Your task to perform on an android device: check battery use Image 0: 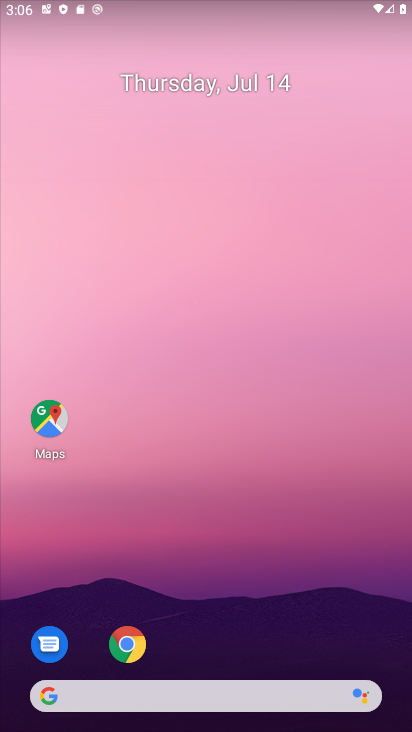
Step 0: click (319, 19)
Your task to perform on an android device: check battery use Image 1: 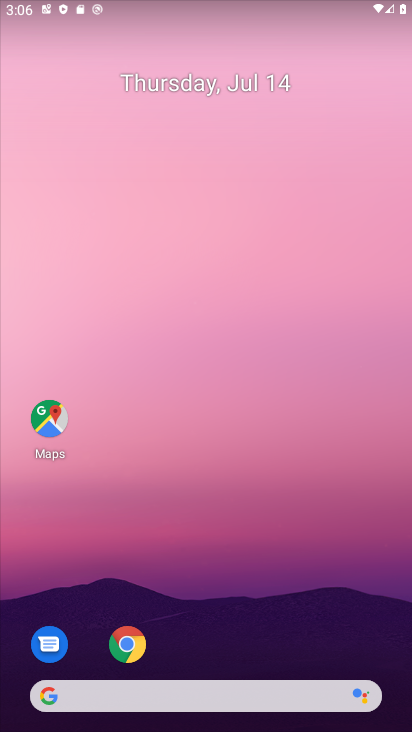
Step 1: drag from (184, 349) to (164, 74)
Your task to perform on an android device: check battery use Image 2: 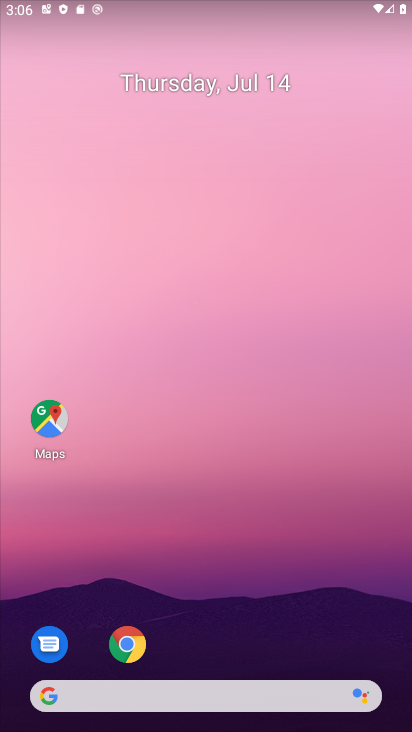
Step 2: drag from (184, 670) to (235, 12)
Your task to perform on an android device: check battery use Image 3: 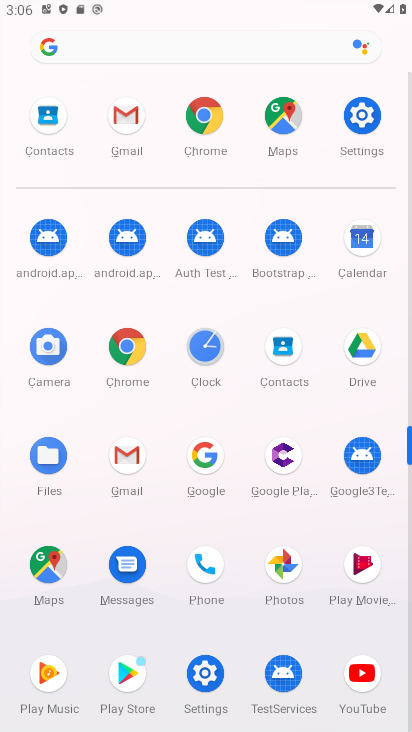
Step 3: click (359, 105)
Your task to perform on an android device: check battery use Image 4: 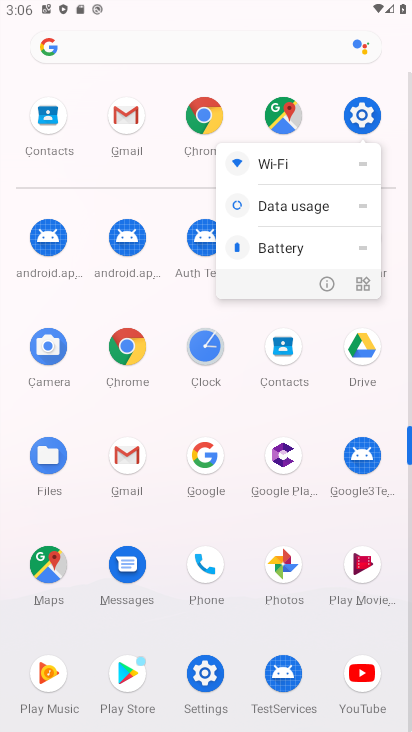
Step 4: click (324, 278)
Your task to perform on an android device: check battery use Image 5: 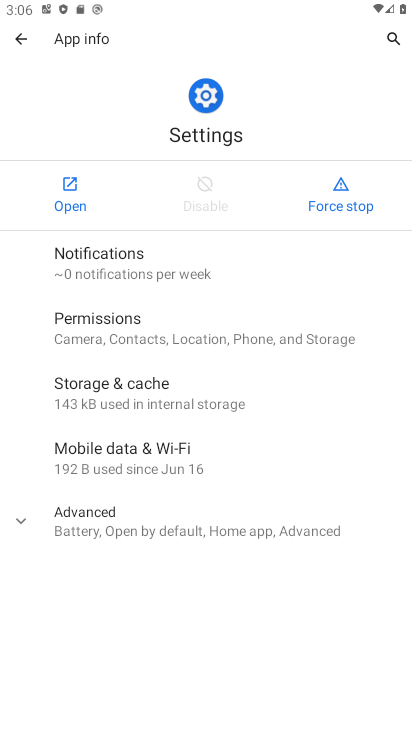
Step 5: click (69, 186)
Your task to perform on an android device: check battery use Image 6: 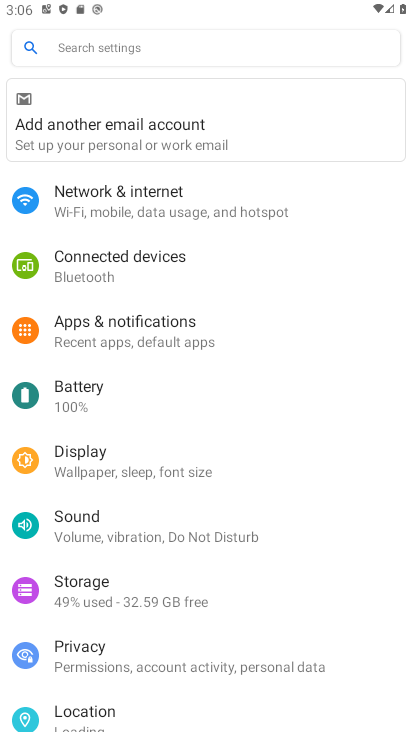
Step 6: click (88, 398)
Your task to perform on an android device: check battery use Image 7: 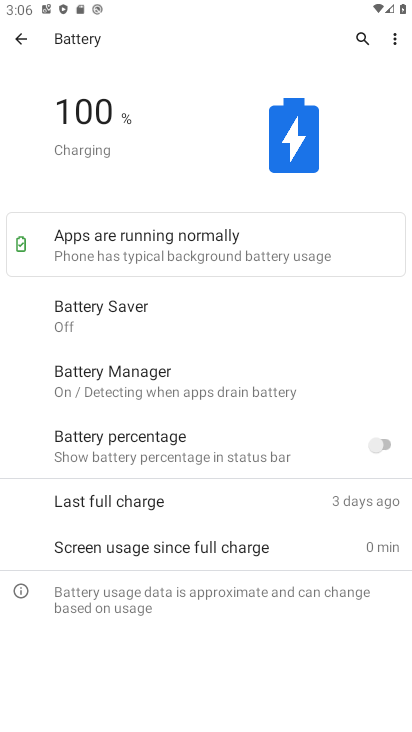
Step 7: drag from (184, 469) to (240, 298)
Your task to perform on an android device: check battery use Image 8: 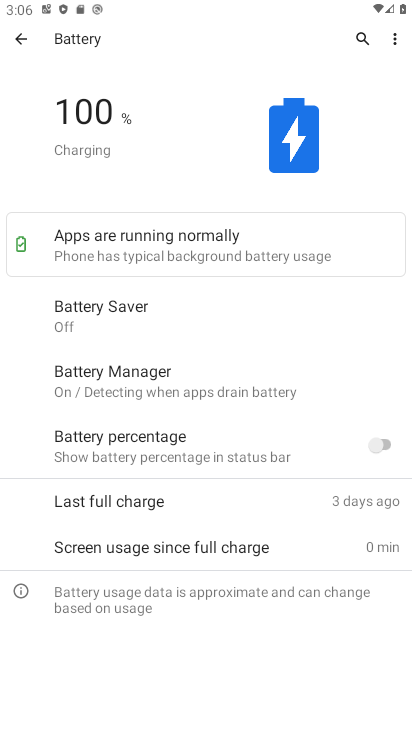
Step 8: click (395, 36)
Your task to perform on an android device: check battery use Image 9: 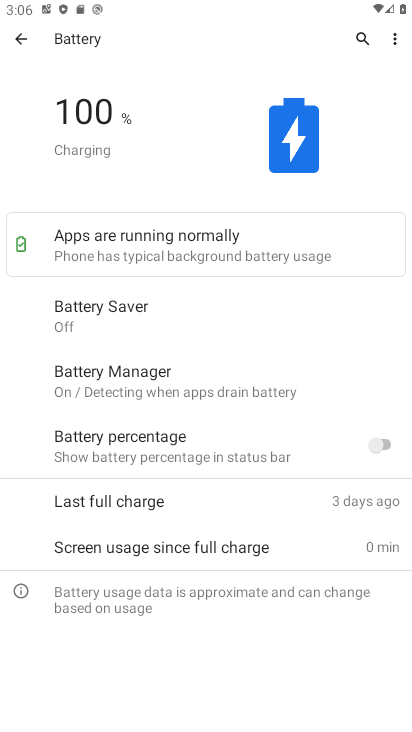
Step 9: click (395, 43)
Your task to perform on an android device: check battery use Image 10: 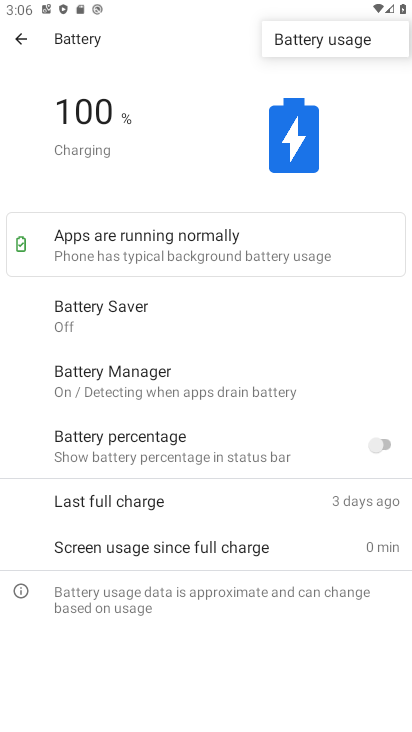
Step 10: click (341, 24)
Your task to perform on an android device: check battery use Image 11: 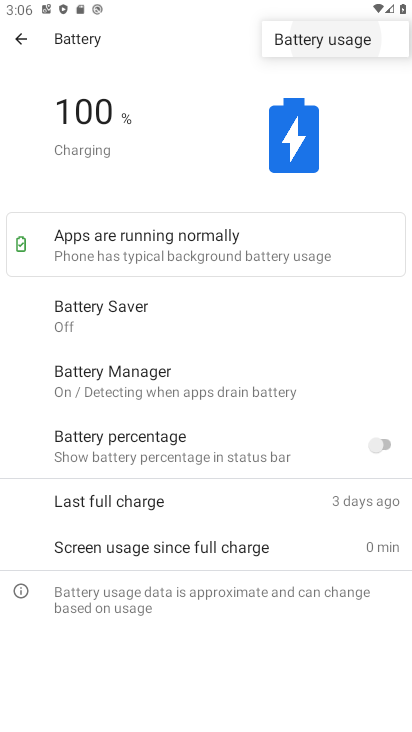
Step 11: click (329, 38)
Your task to perform on an android device: check battery use Image 12: 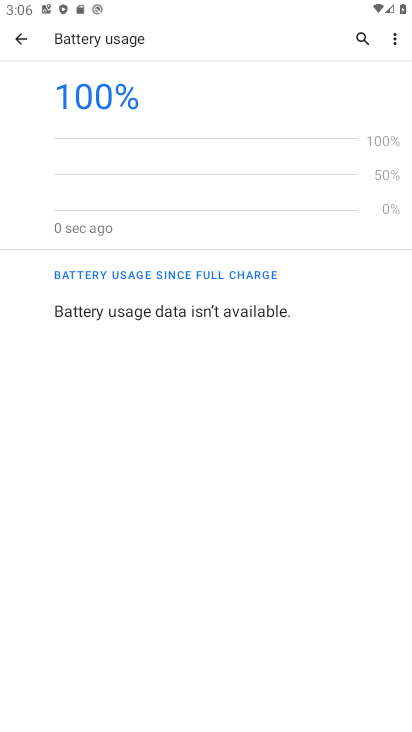
Step 12: task complete